Your task to perform on an android device: Open the calendar app, open the side menu, and click the "Day" option Image 0: 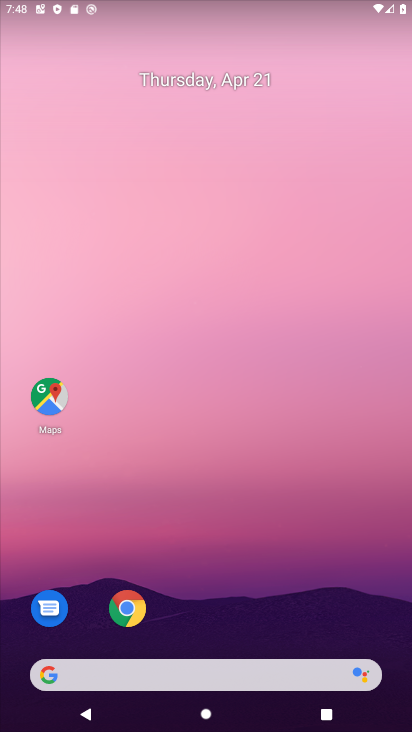
Step 0: drag from (230, 631) to (304, 213)
Your task to perform on an android device: Open the calendar app, open the side menu, and click the "Day" option Image 1: 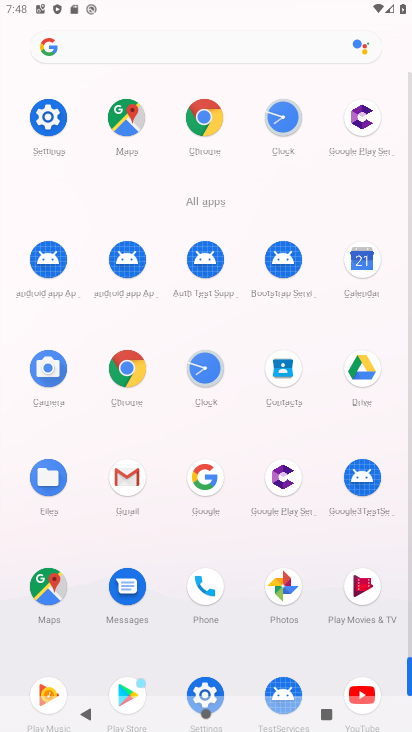
Step 1: click (353, 286)
Your task to perform on an android device: Open the calendar app, open the side menu, and click the "Day" option Image 2: 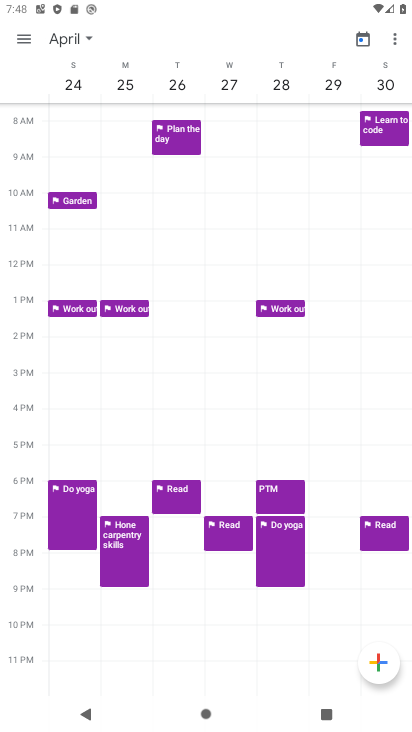
Step 2: click (19, 45)
Your task to perform on an android device: Open the calendar app, open the side menu, and click the "Day" option Image 3: 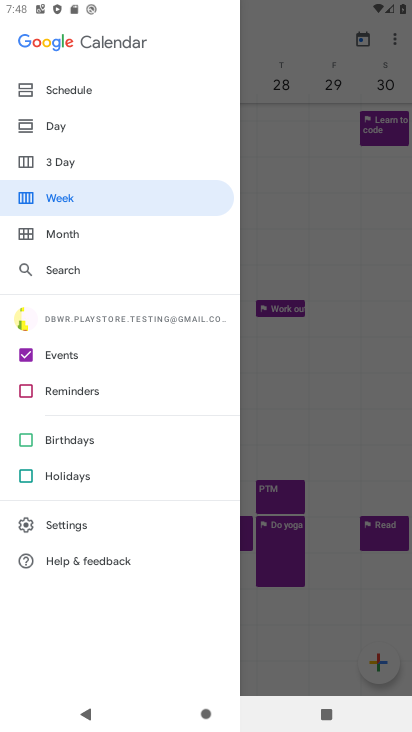
Step 3: click (53, 133)
Your task to perform on an android device: Open the calendar app, open the side menu, and click the "Day" option Image 4: 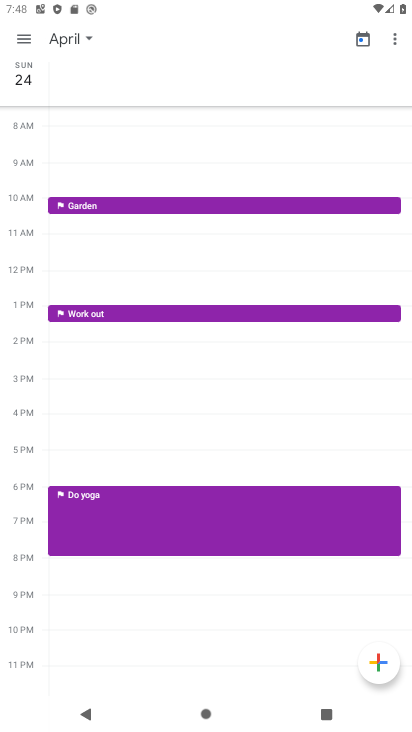
Step 4: task complete